Your task to perform on an android device: open app "Booking.com: Hotels and more" Image 0: 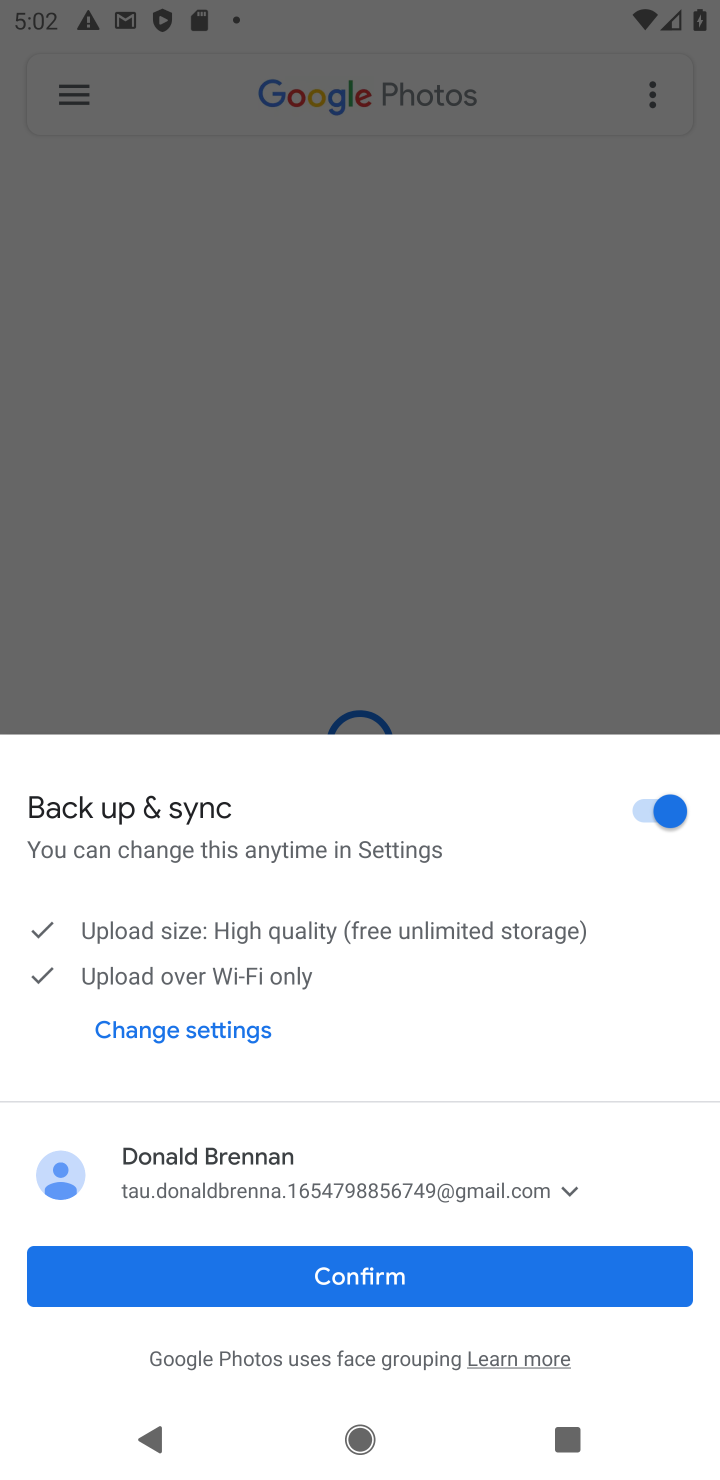
Step 0: click (407, 1268)
Your task to perform on an android device: open app "Booking.com: Hotels and more" Image 1: 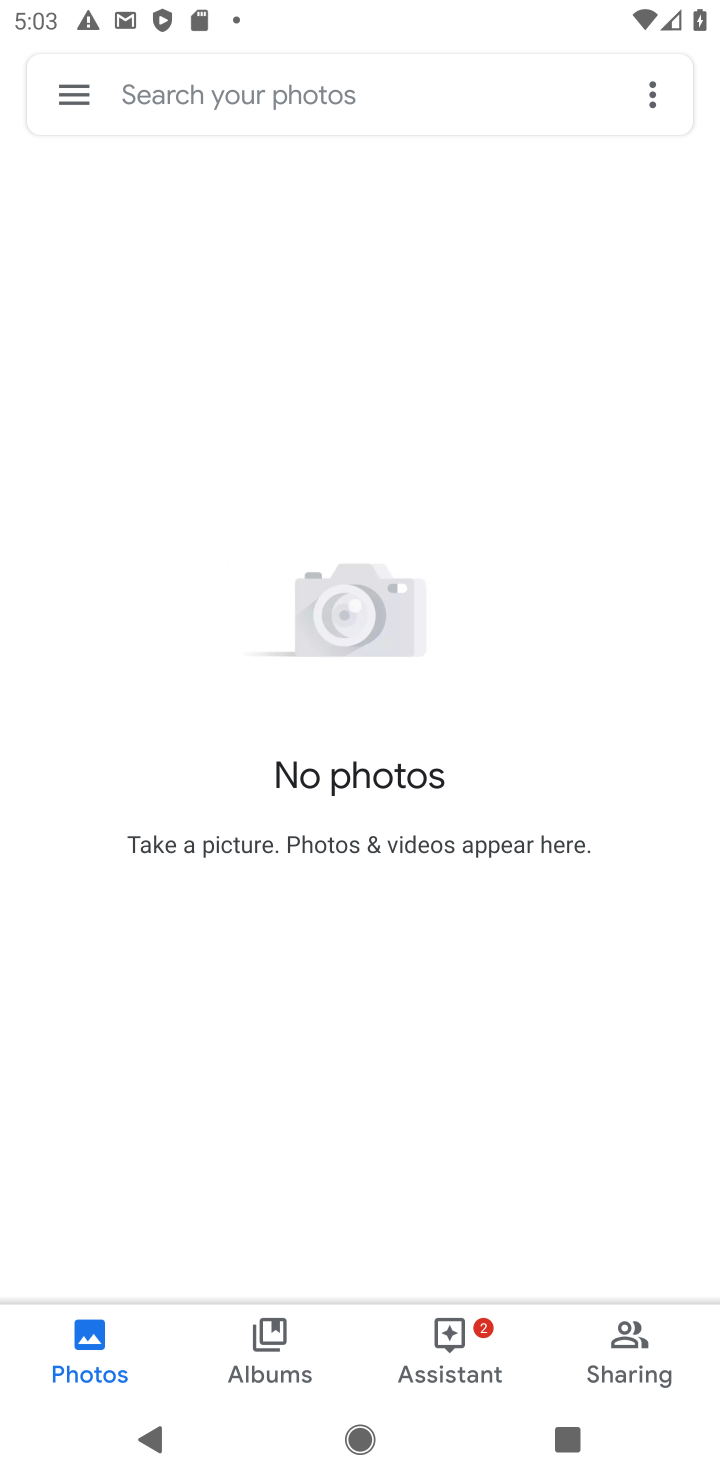
Step 1: press home button
Your task to perform on an android device: open app "Booking.com: Hotels and more" Image 2: 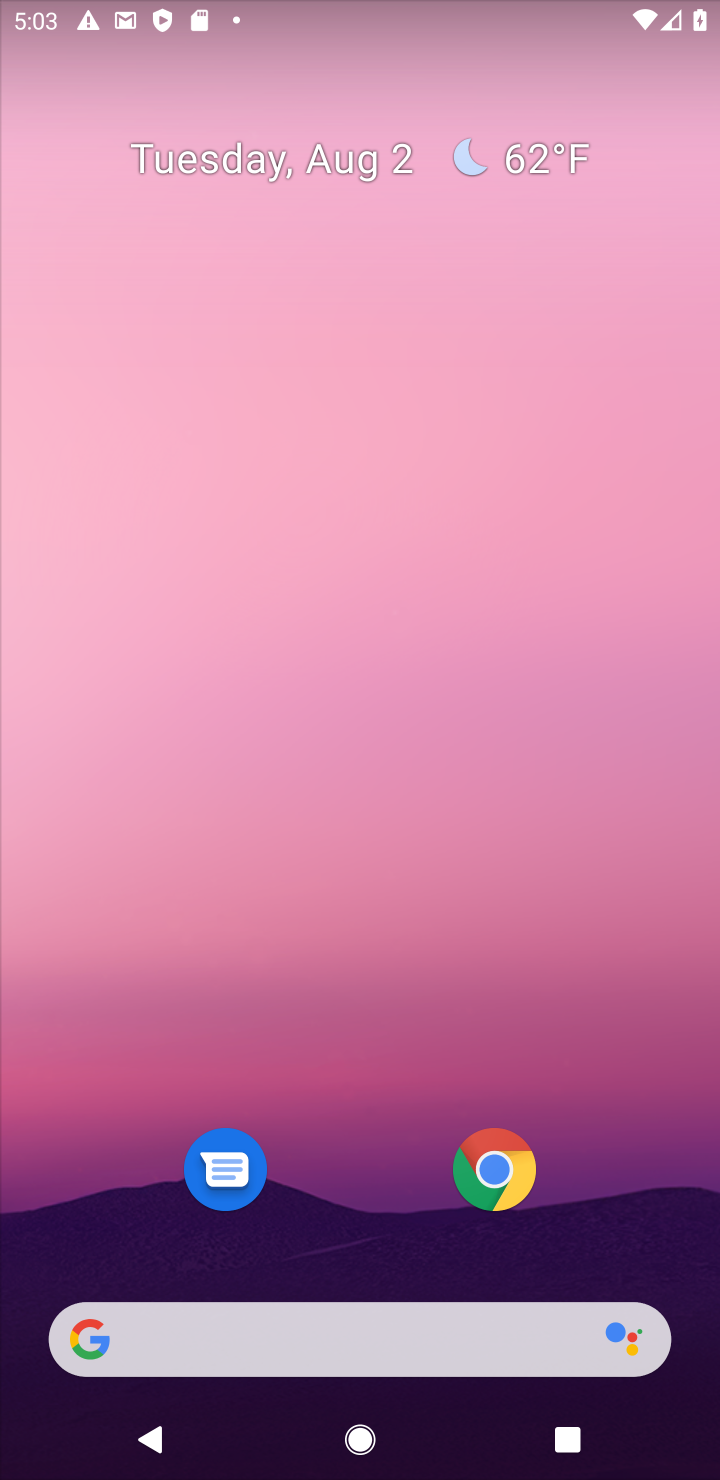
Step 2: drag from (411, 1061) to (231, 549)
Your task to perform on an android device: open app "Booking.com: Hotels and more" Image 3: 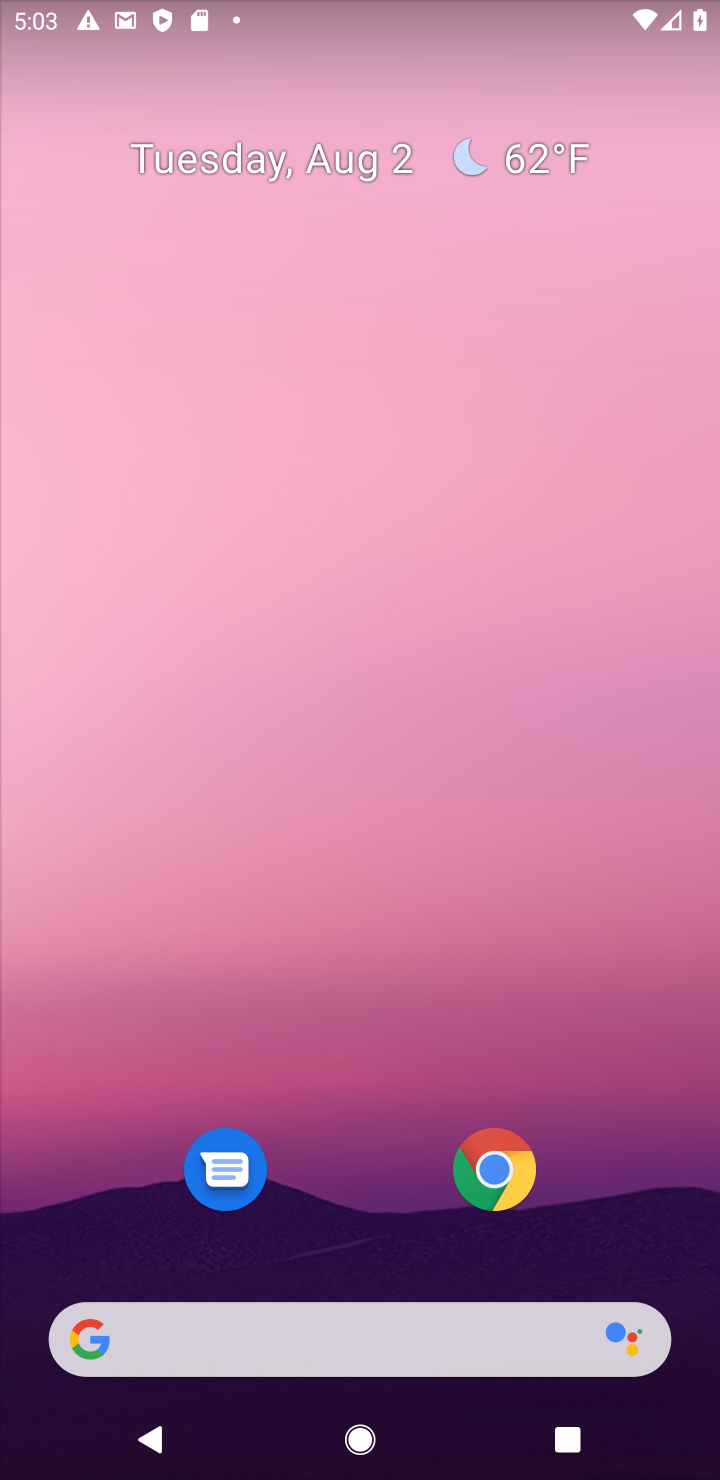
Step 3: drag from (359, 1089) to (341, 243)
Your task to perform on an android device: open app "Booking.com: Hotels and more" Image 4: 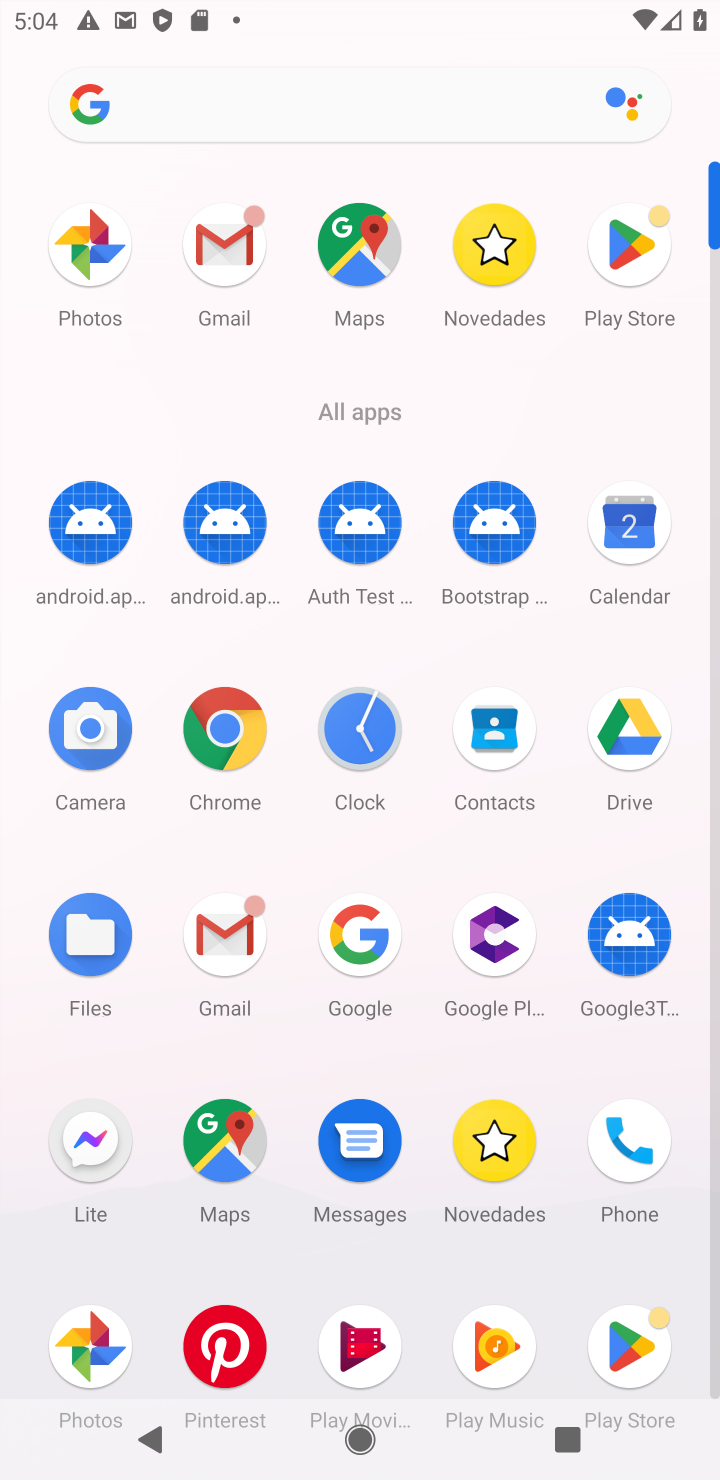
Step 4: click (626, 260)
Your task to perform on an android device: open app "Booking.com: Hotels and more" Image 5: 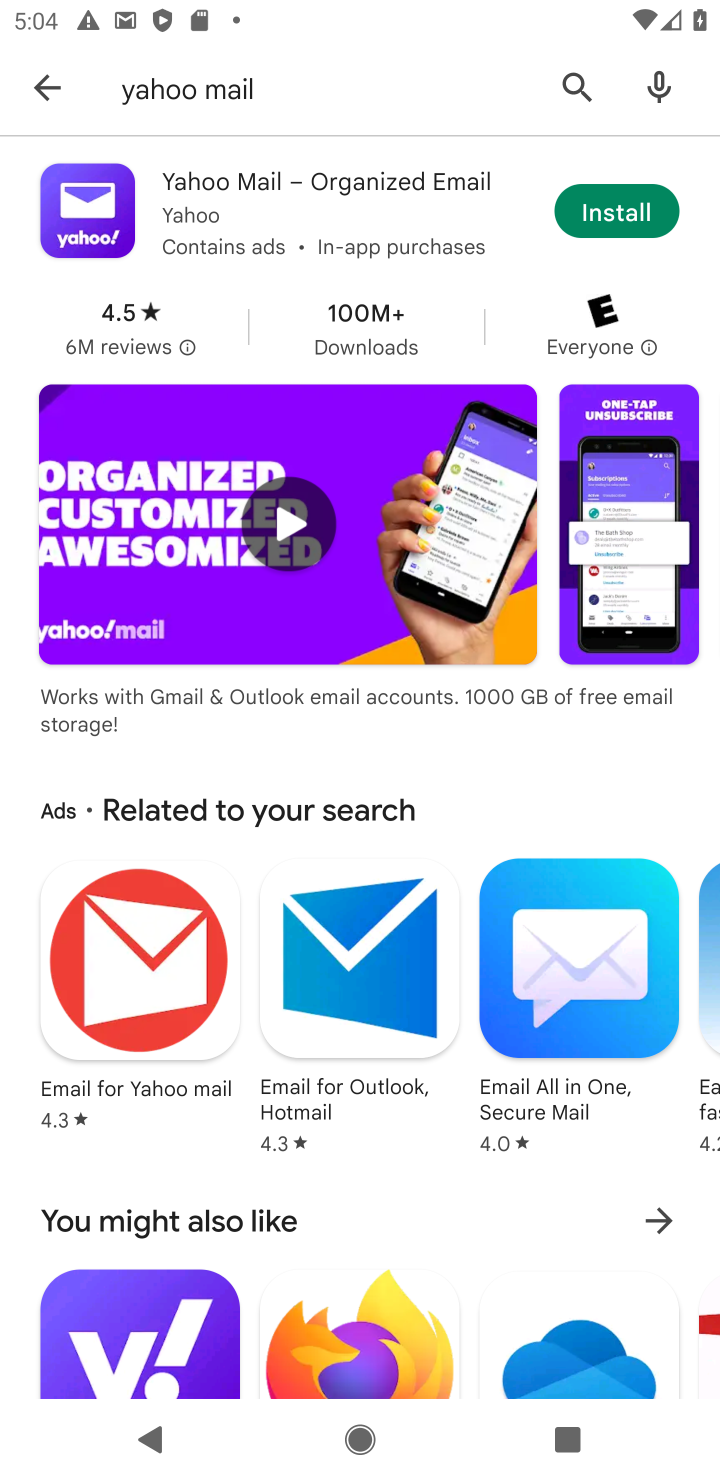
Step 5: click (569, 89)
Your task to perform on an android device: open app "Booking.com: Hotels and more" Image 6: 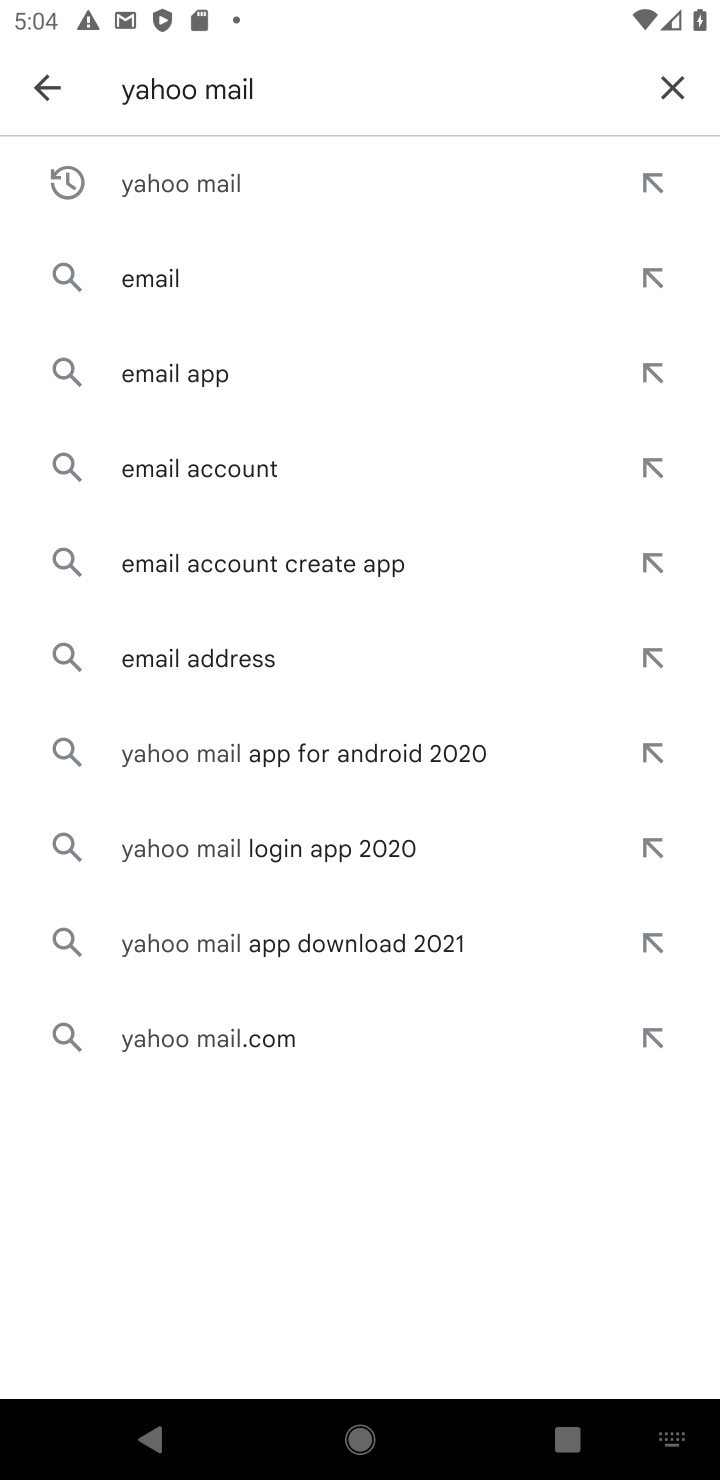
Step 6: click (674, 89)
Your task to perform on an android device: open app "Booking.com: Hotels and more" Image 7: 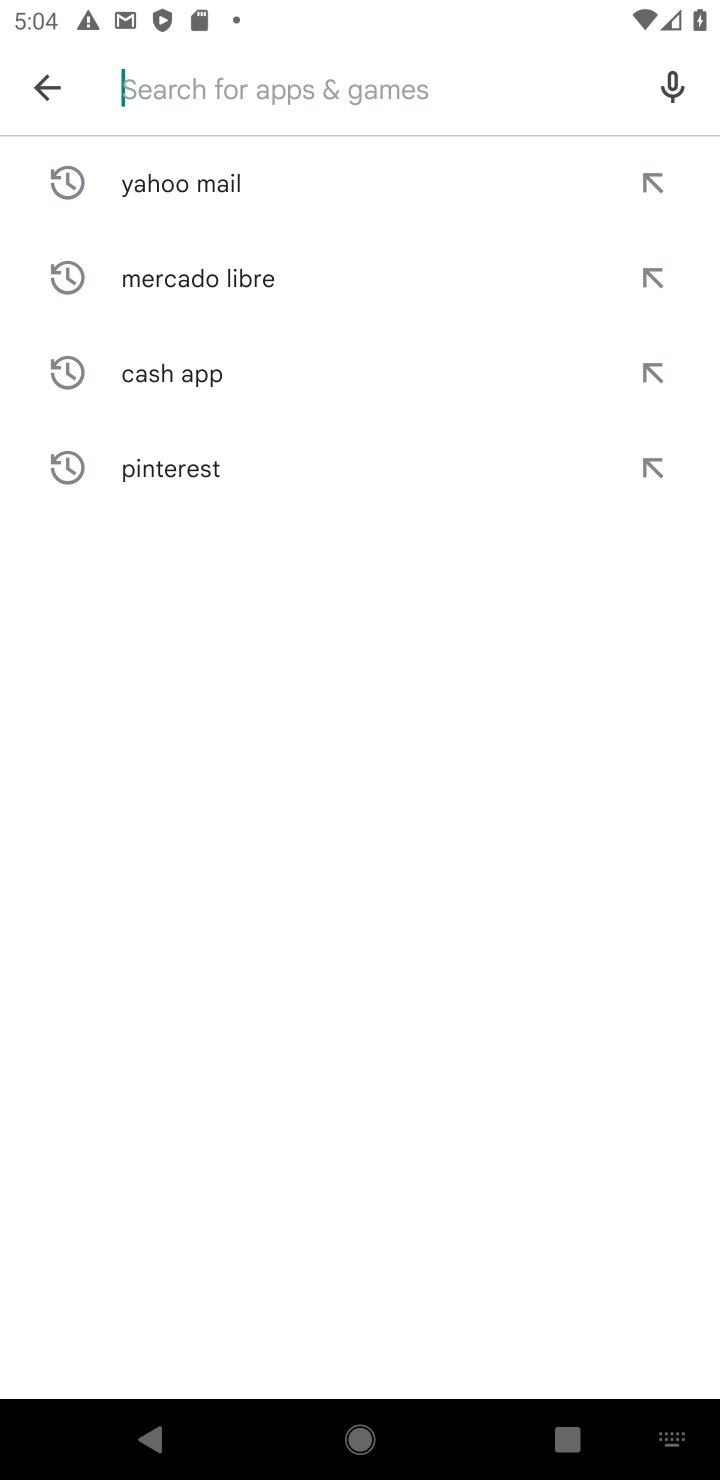
Step 7: type "booking.com"
Your task to perform on an android device: open app "Booking.com: Hotels and more" Image 8: 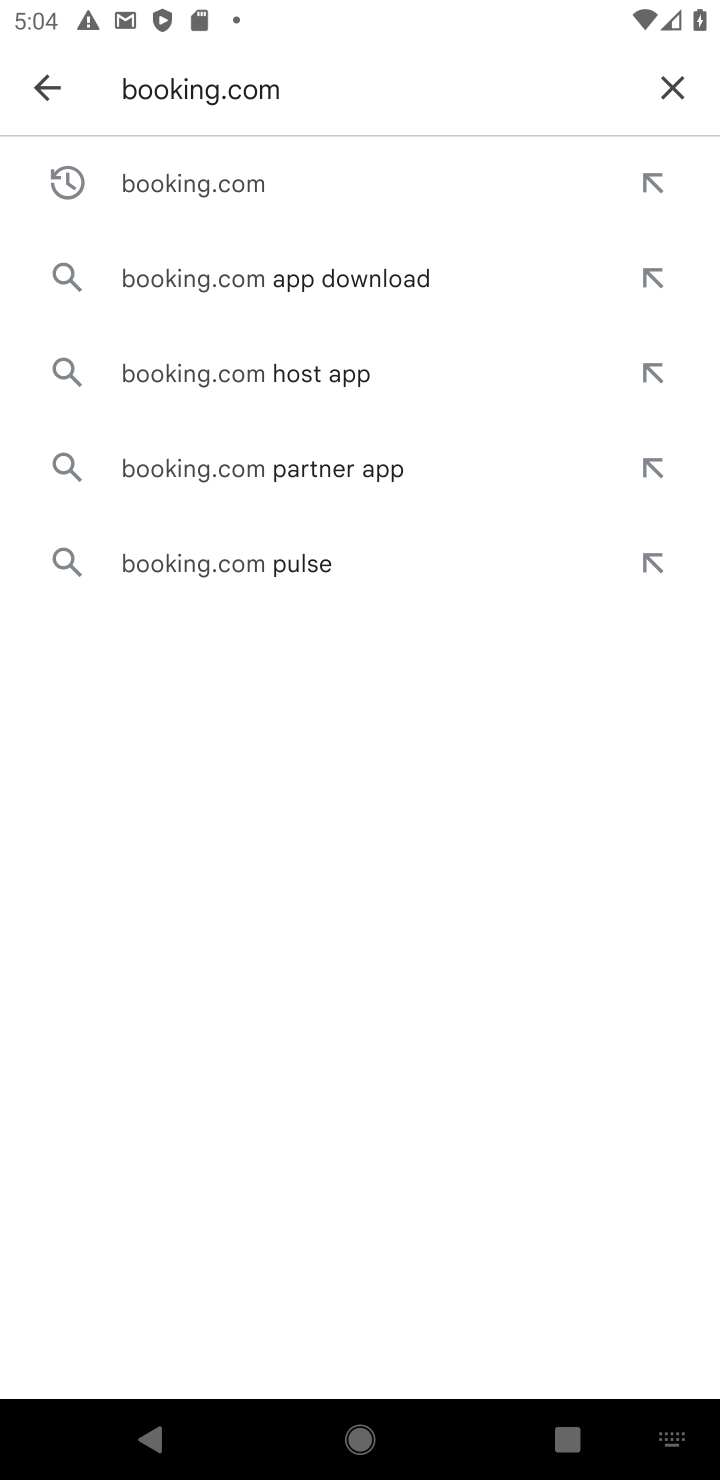
Step 8: click (243, 191)
Your task to perform on an android device: open app "Booking.com: Hotels and more" Image 9: 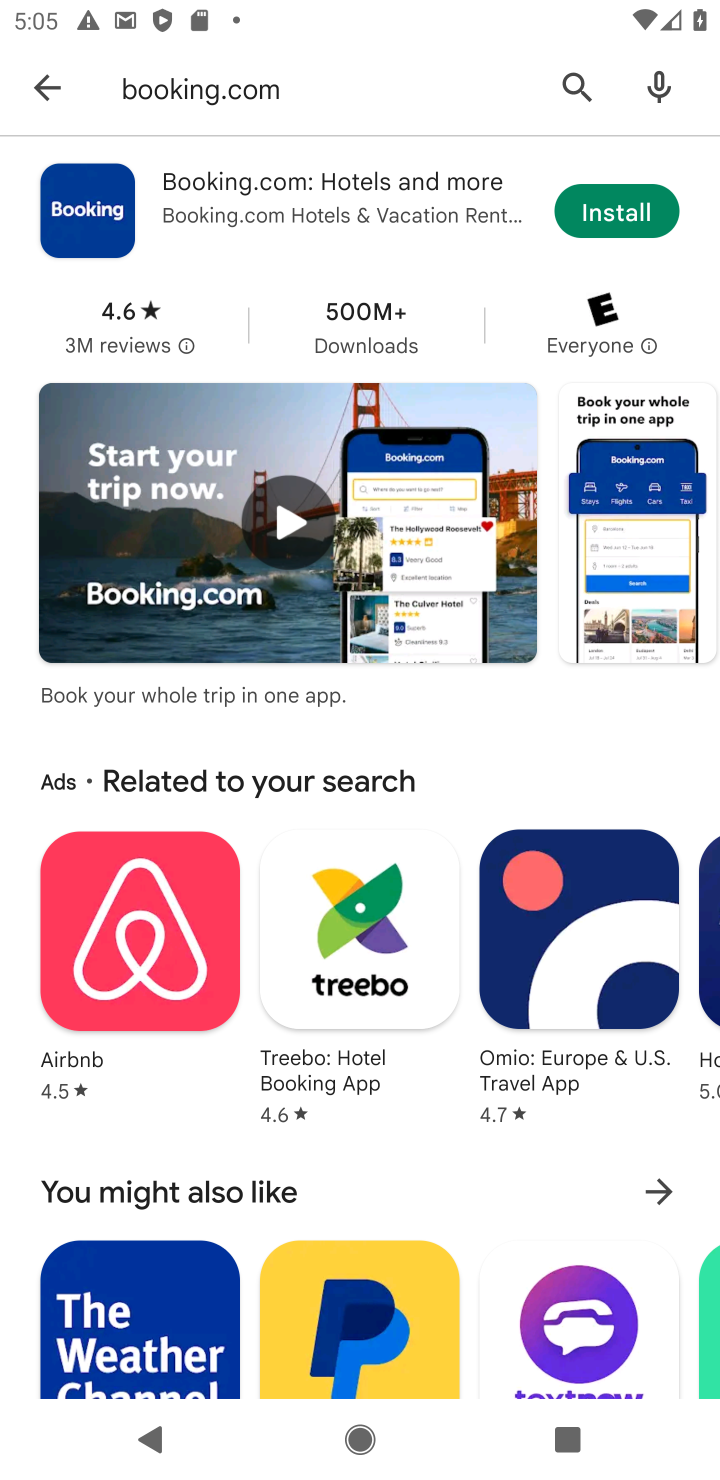
Step 9: task complete